Your task to perform on an android device: empty trash in the gmail app Image 0: 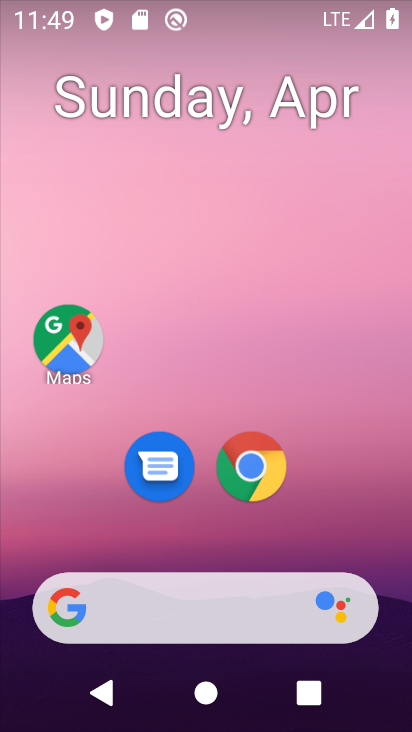
Step 0: drag from (354, 508) to (322, 220)
Your task to perform on an android device: empty trash in the gmail app Image 1: 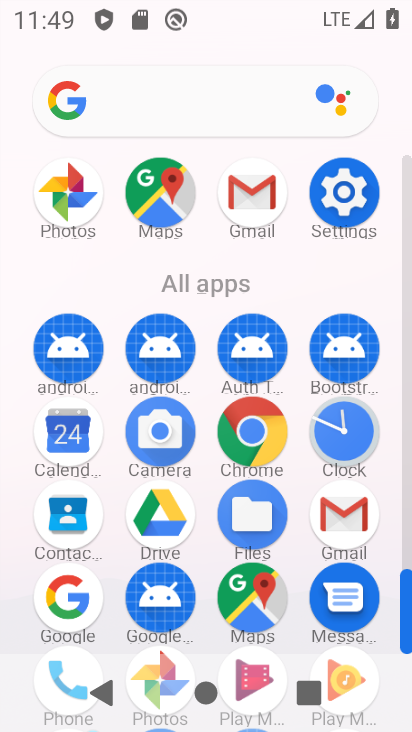
Step 1: click (274, 198)
Your task to perform on an android device: empty trash in the gmail app Image 2: 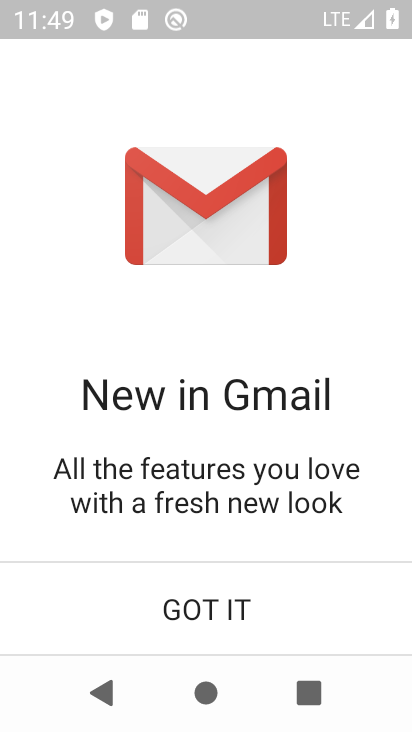
Step 2: click (225, 609)
Your task to perform on an android device: empty trash in the gmail app Image 3: 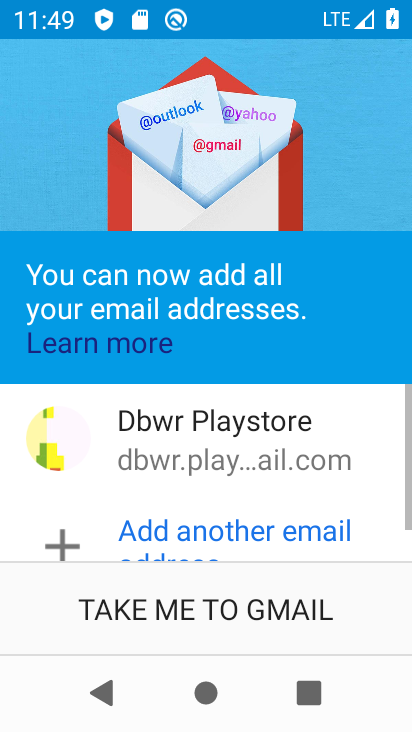
Step 3: click (225, 609)
Your task to perform on an android device: empty trash in the gmail app Image 4: 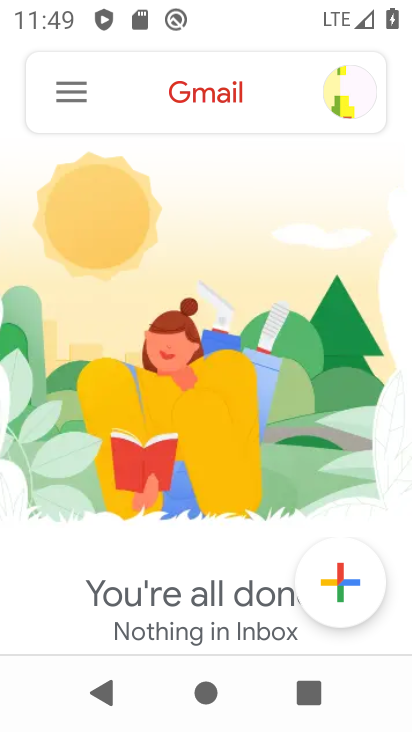
Step 4: click (88, 99)
Your task to perform on an android device: empty trash in the gmail app Image 5: 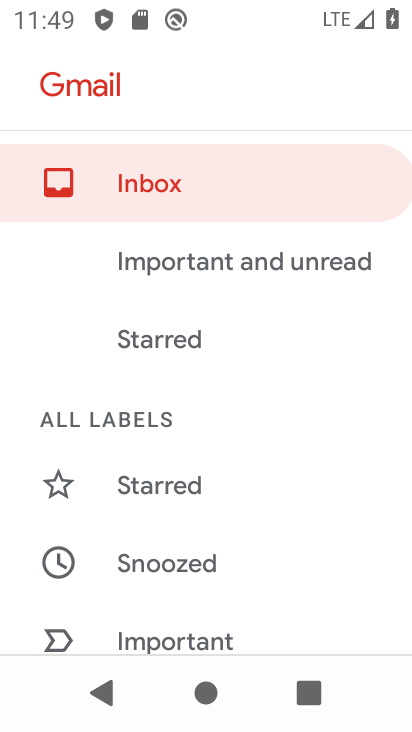
Step 5: drag from (196, 574) to (231, 76)
Your task to perform on an android device: empty trash in the gmail app Image 6: 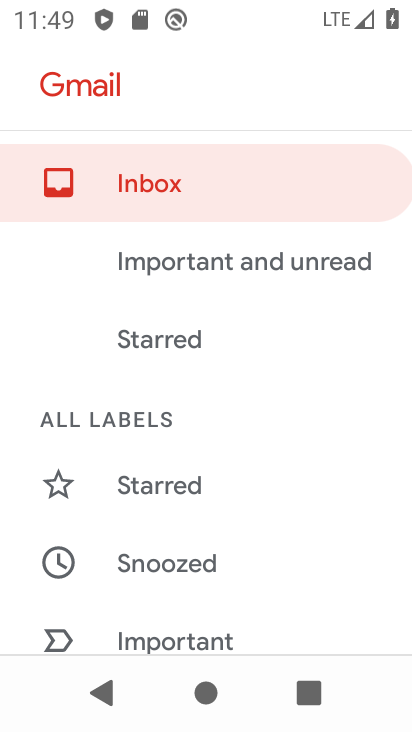
Step 6: drag from (291, 648) to (279, 274)
Your task to perform on an android device: empty trash in the gmail app Image 7: 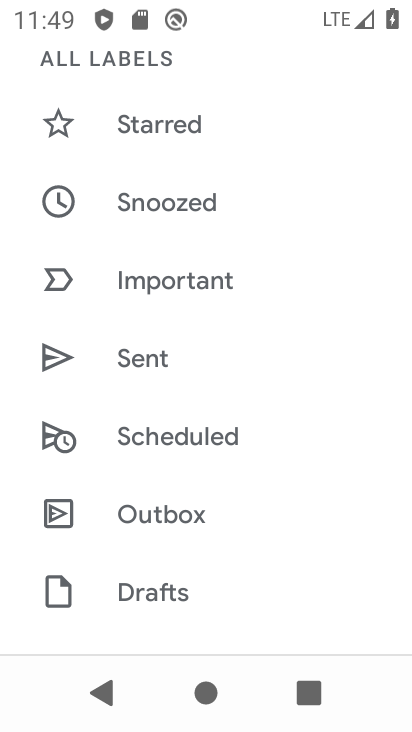
Step 7: drag from (307, 562) to (314, 130)
Your task to perform on an android device: empty trash in the gmail app Image 8: 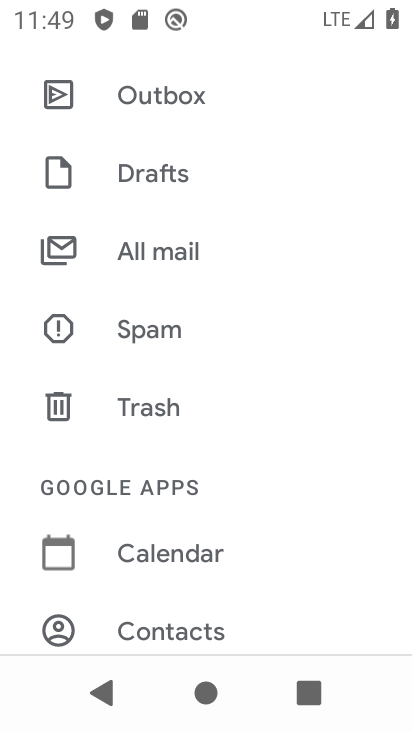
Step 8: click (272, 409)
Your task to perform on an android device: empty trash in the gmail app Image 9: 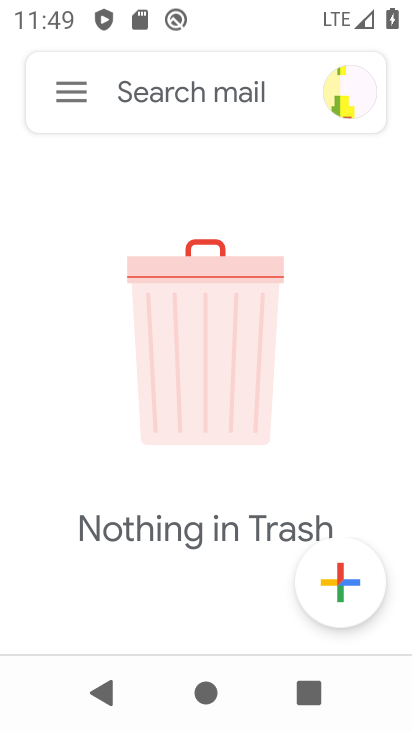
Step 9: task complete